Your task to perform on an android device: Open calendar and show me the second week of next month Image 0: 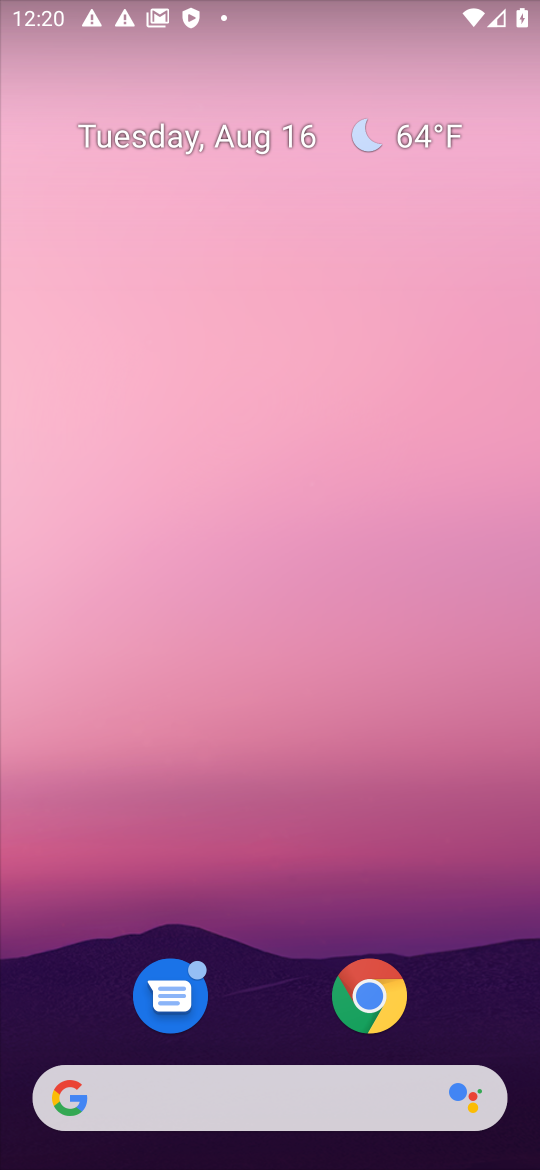
Step 0: drag from (95, 1068) to (433, 323)
Your task to perform on an android device: Open calendar and show me the second week of next month Image 1: 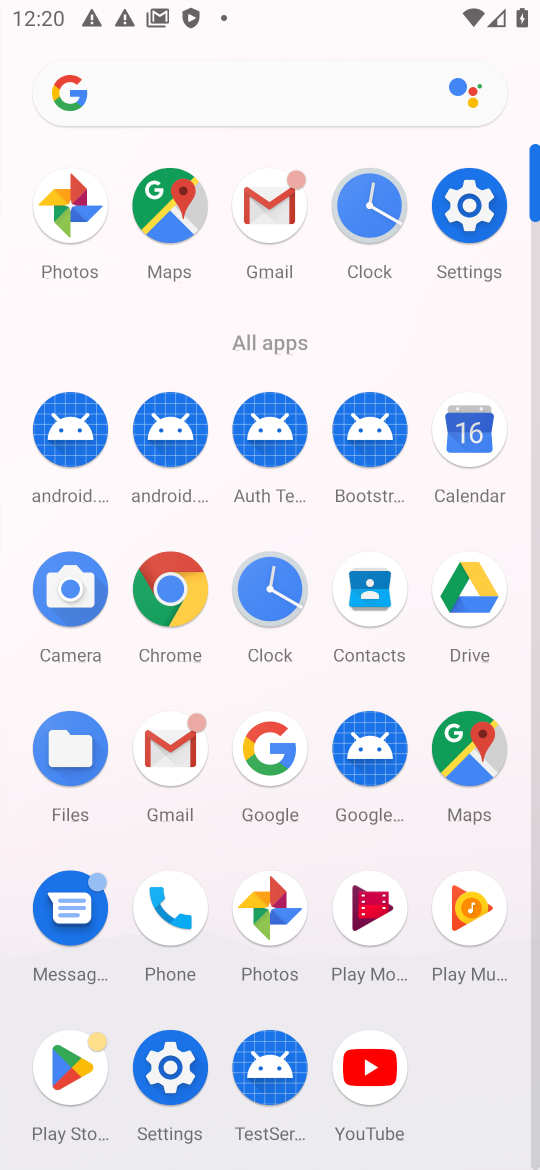
Step 1: click (485, 450)
Your task to perform on an android device: Open calendar and show me the second week of next month Image 2: 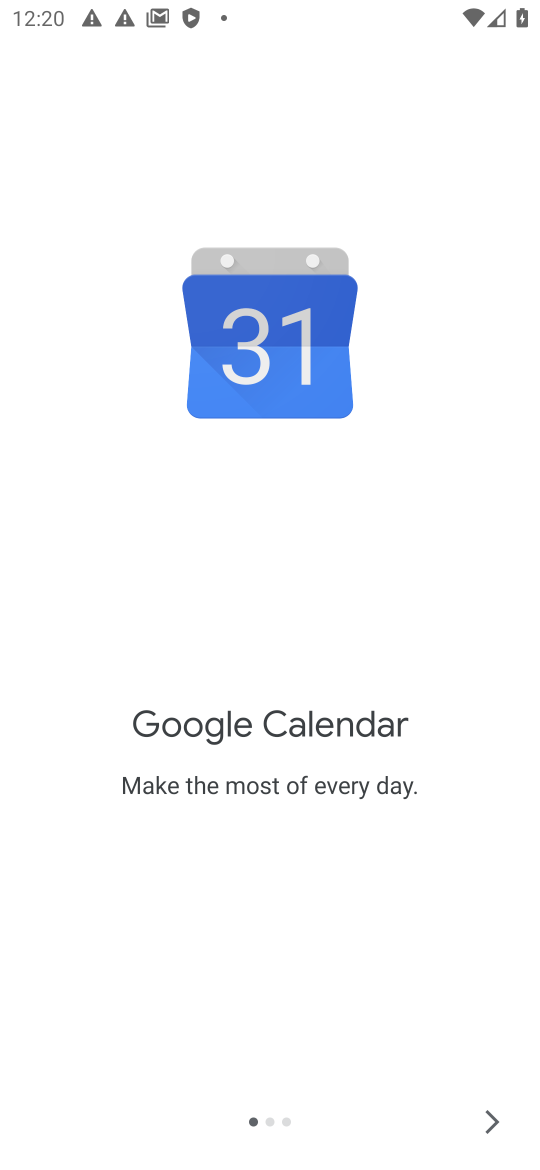
Step 2: click (493, 1116)
Your task to perform on an android device: Open calendar and show me the second week of next month Image 3: 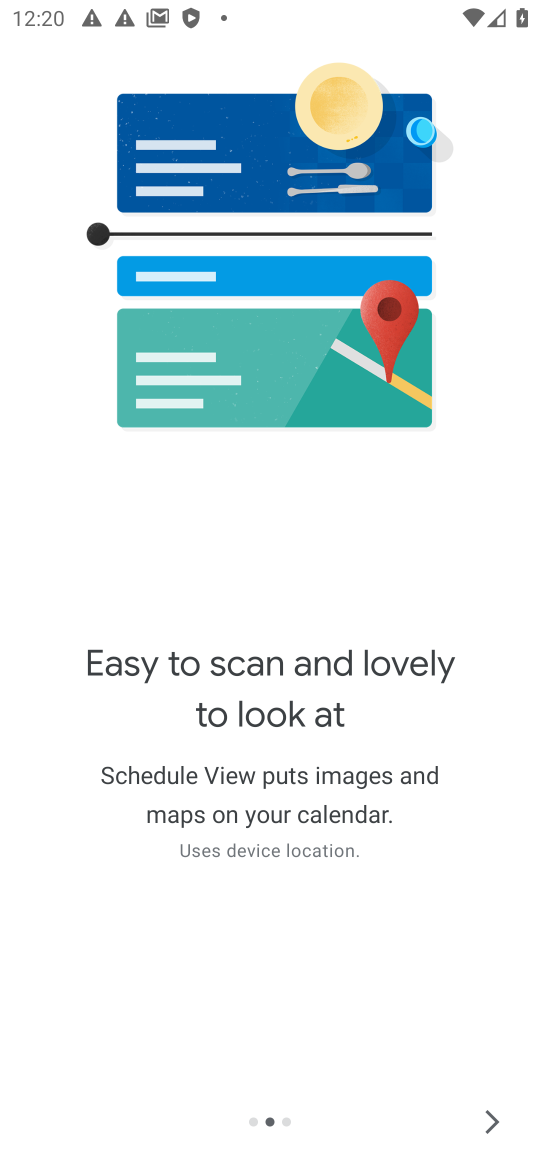
Step 3: click (493, 1116)
Your task to perform on an android device: Open calendar and show me the second week of next month Image 4: 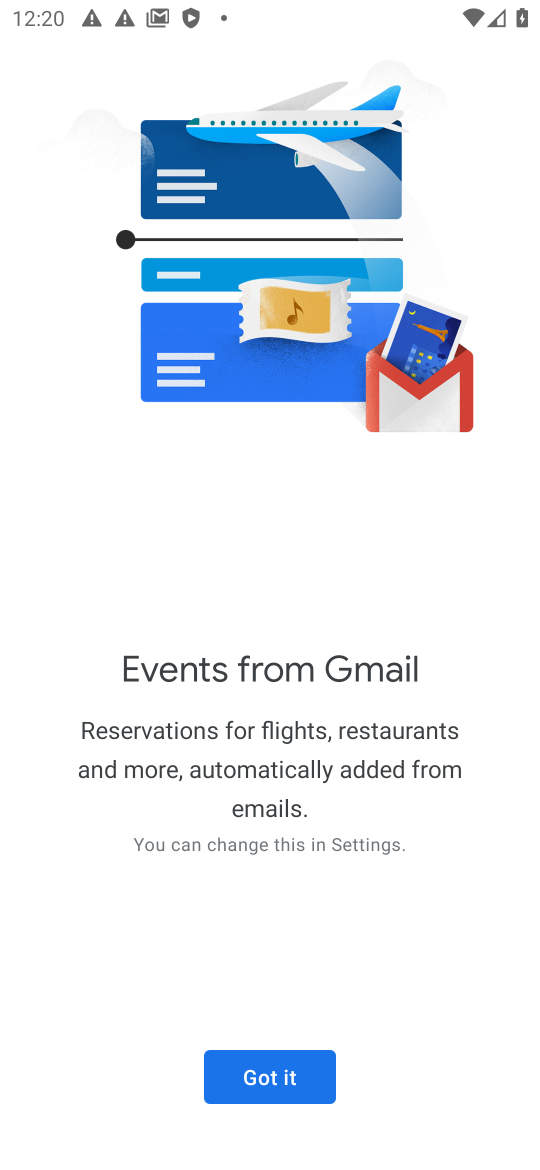
Step 4: click (233, 1076)
Your task to perform on an android device: Open calendar and show me the second week of next month Image 5: 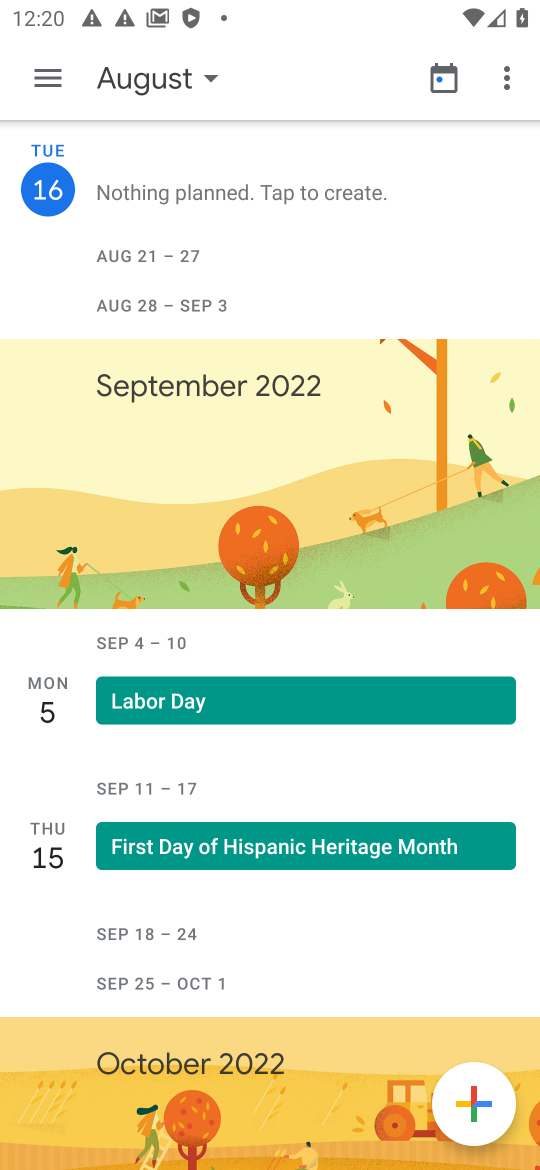
Step 5: click (205, 87)
Your task to perform on an android device: Open calendar and show me the second week of next month Image 6: 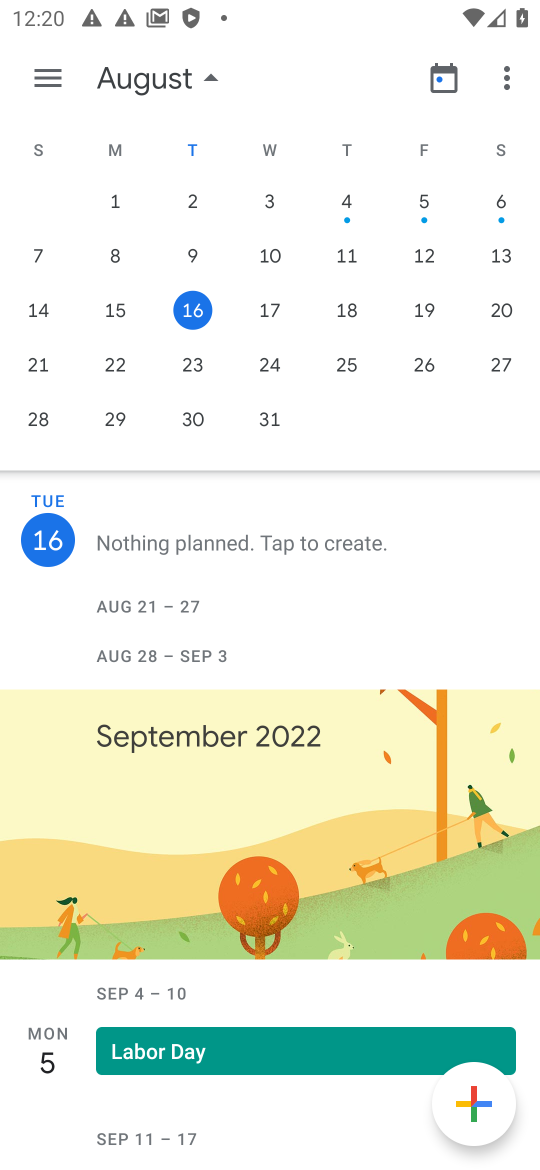
Step 6: task complete